Your task to perform on an android device: change the clock display to analog Image 0: 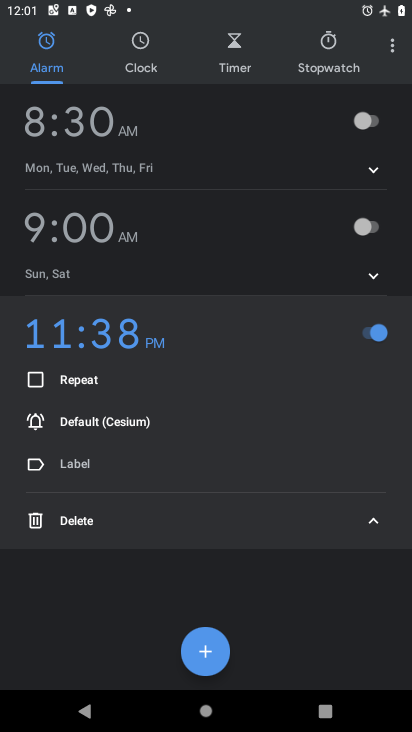
Step 0: press home button
Your task to perform on an android device: change the clock display to analog Image 1: 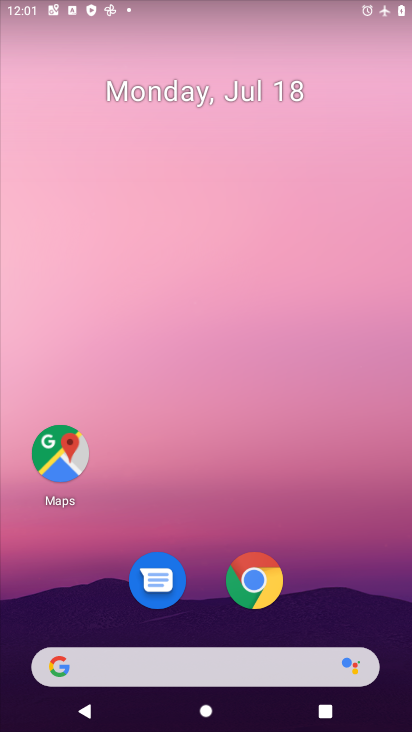
Step 1: drag from (243, 598) to (314, 183)
Your task to perform on an android device: change the clock display to analog Image 2: 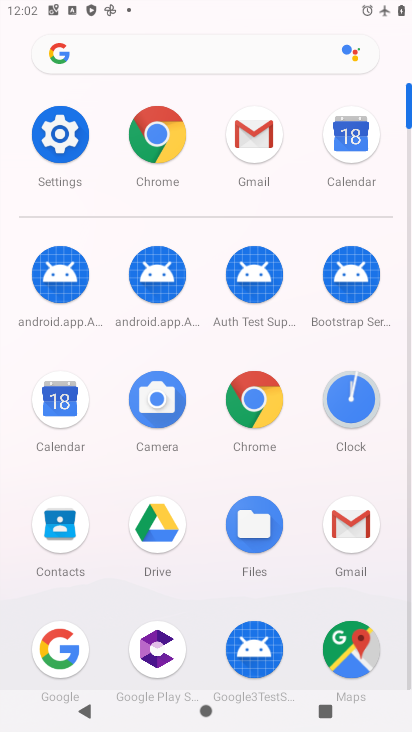
Step 2: click (345, 415)
Your task to perform on an android device: change the clock display to analog Image 3: 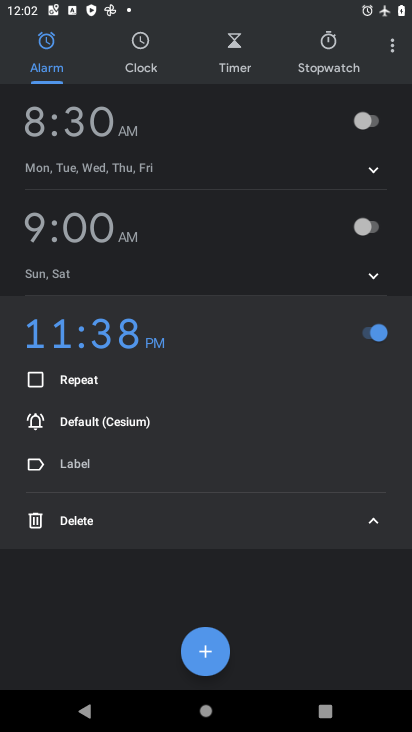
Step 3: click (392, 50)
Your task to perform on an android device: change the clock display to analog Image 4: 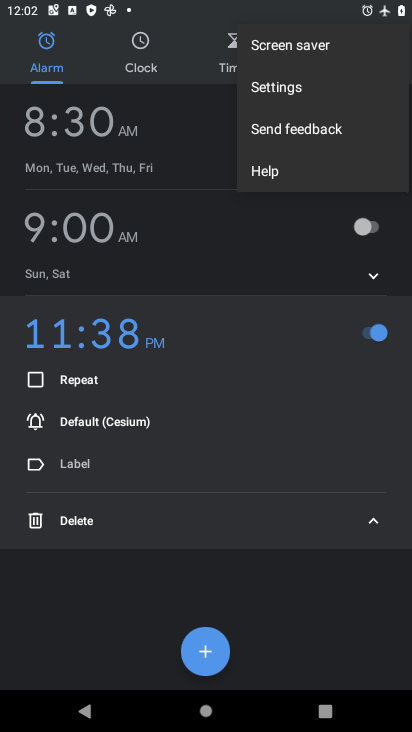
Step 4: click (274, 81)
Your task to perform on an android device: change the clock display to analog Image 5: 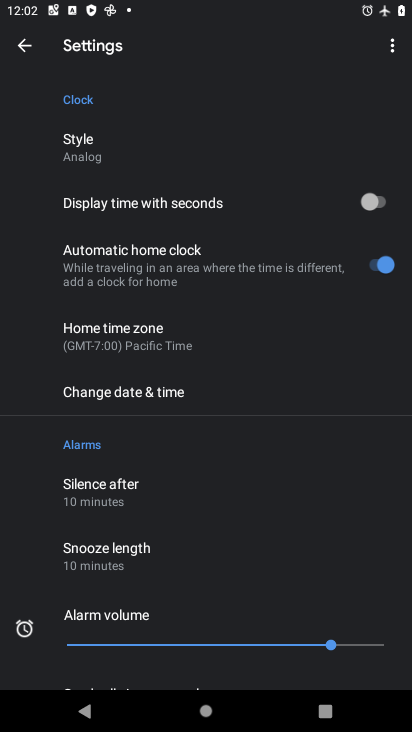
Step 5: task complete